Your task to perform on an android device: add a contact Image 0: 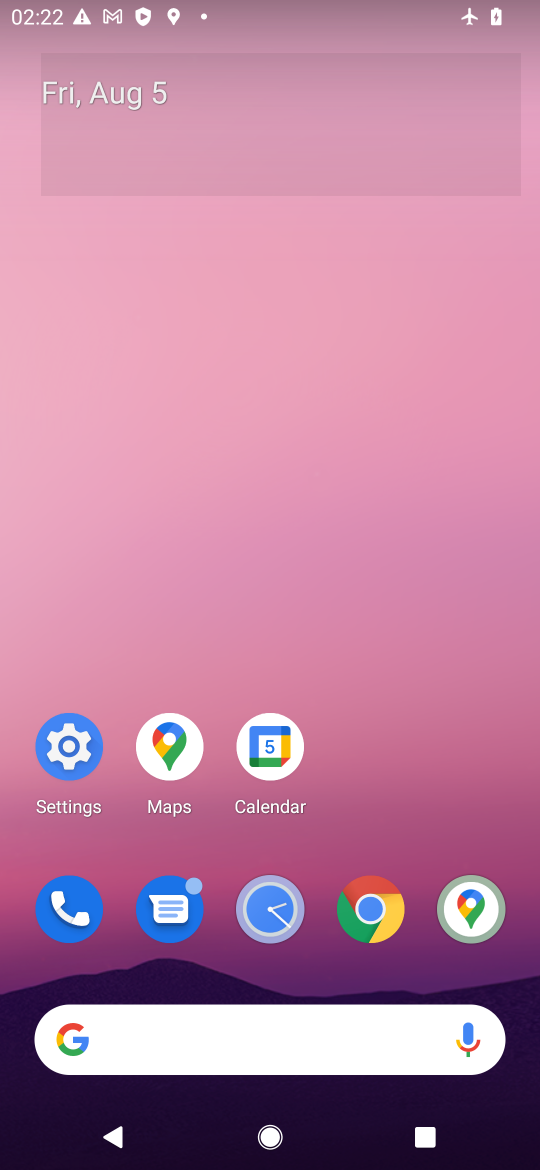
Step 0: drag from (360, 807) to (368, 88)
Your task to perform on an android device: add a contact Image 1: 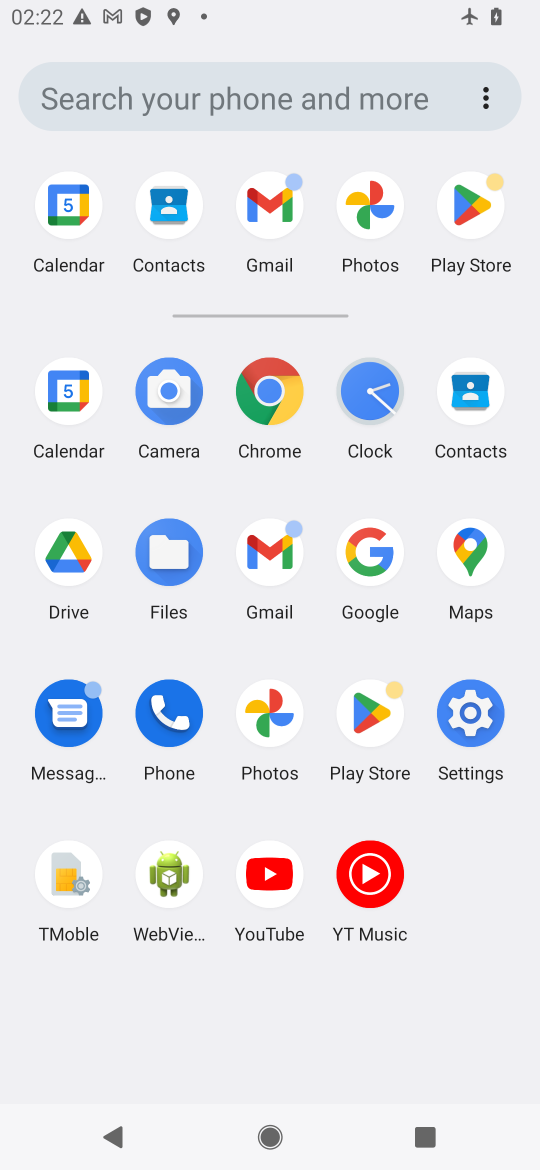
Step 1: click (473, 390)
Your task to perform on an android device: add a contact Image 2: 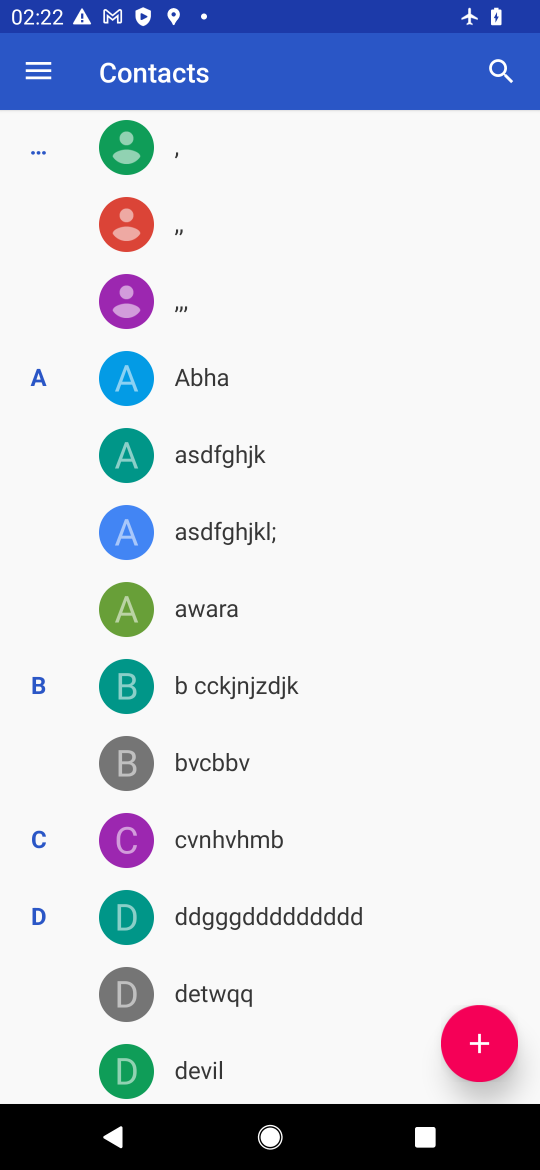
Step 2: click (482, 1046)
Your task to perform on an android device: add a contact Image 3: 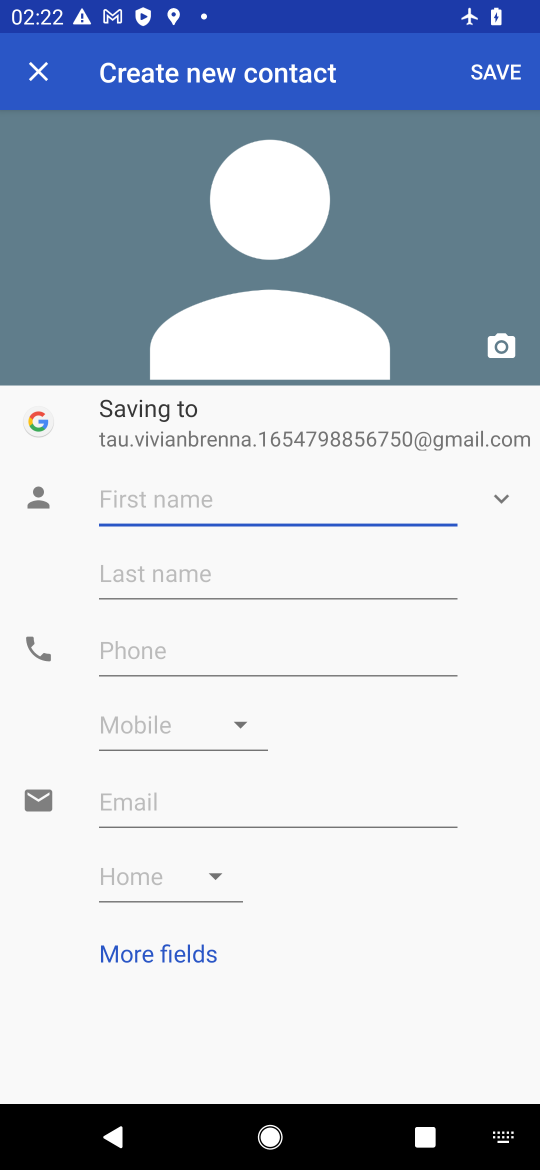
Step 3: type "ddddddd"
Your task to perform on an android device: add a contact Image 4: 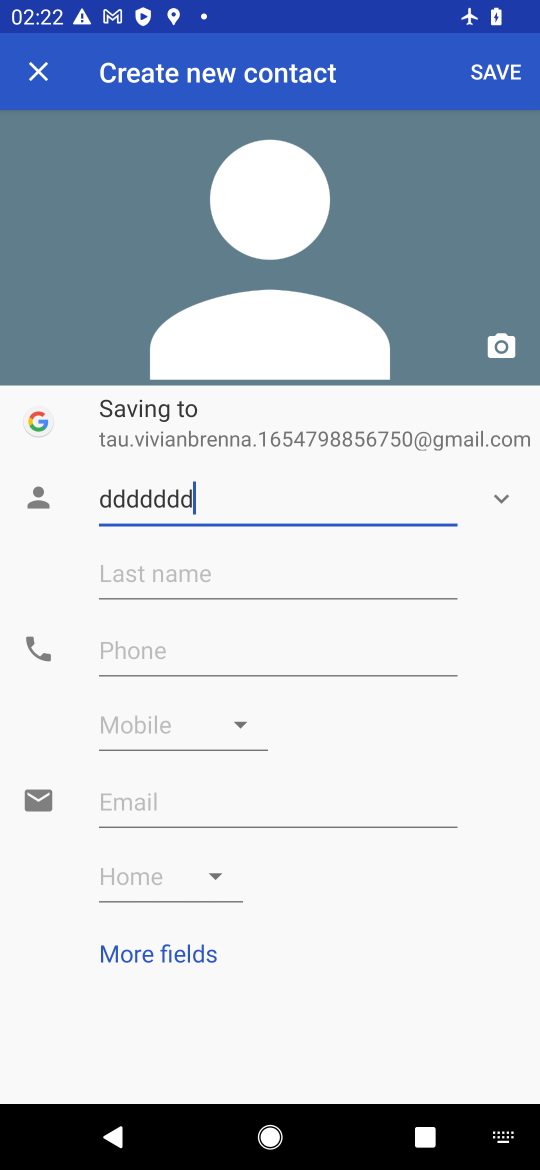
Step 4: click (247, 638)
Your task to perform on an android device: add a contact Image 5: 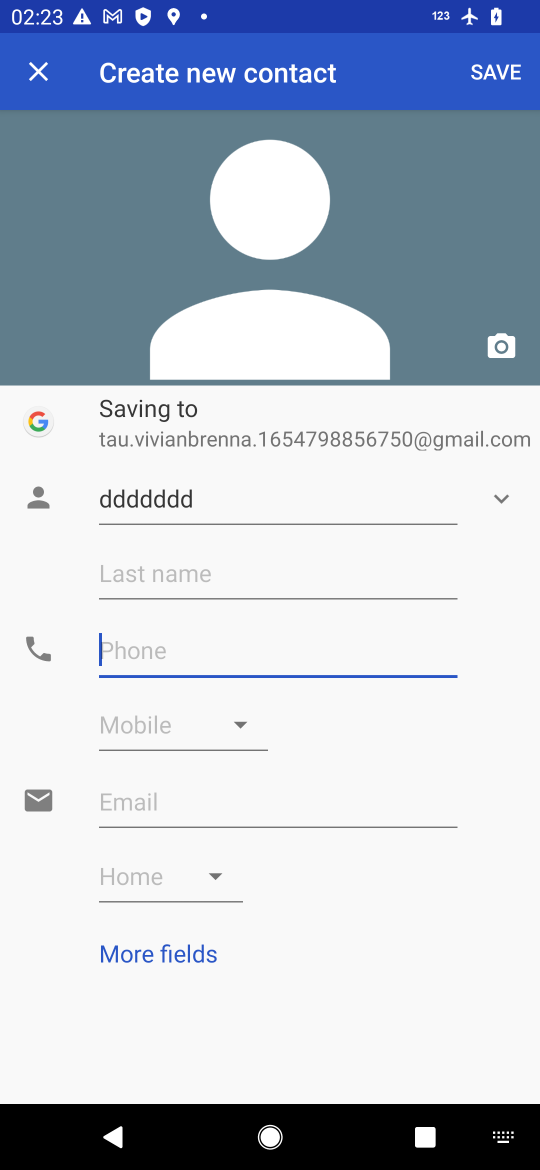
Step 5: type "5555"
Your task to perform on an android device: add a contact Image 6: 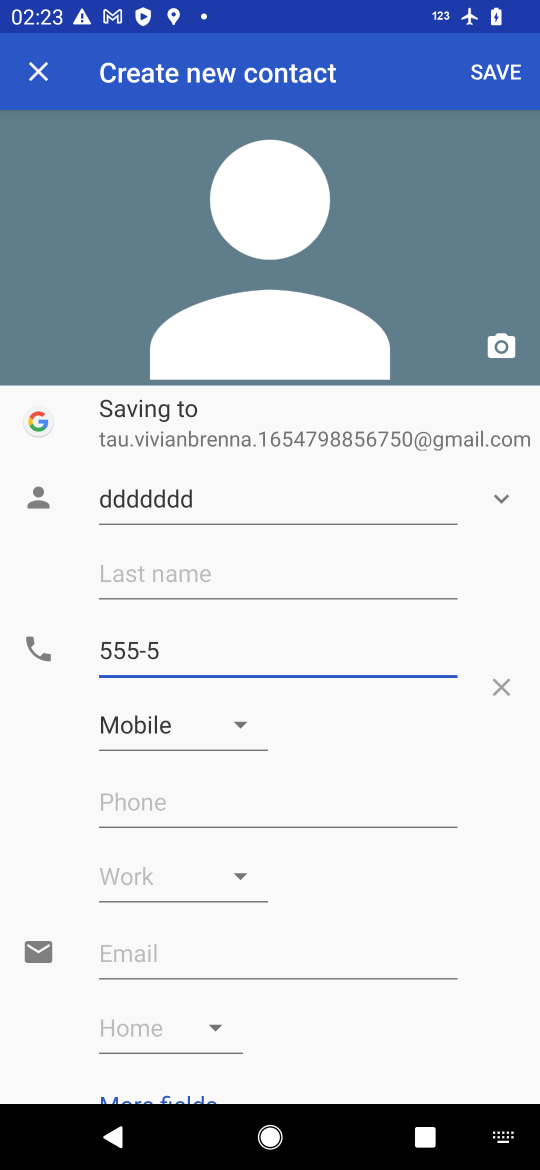
Step 6: click (499, 68)
Your task to perform on an android device: add a contact Image 7: 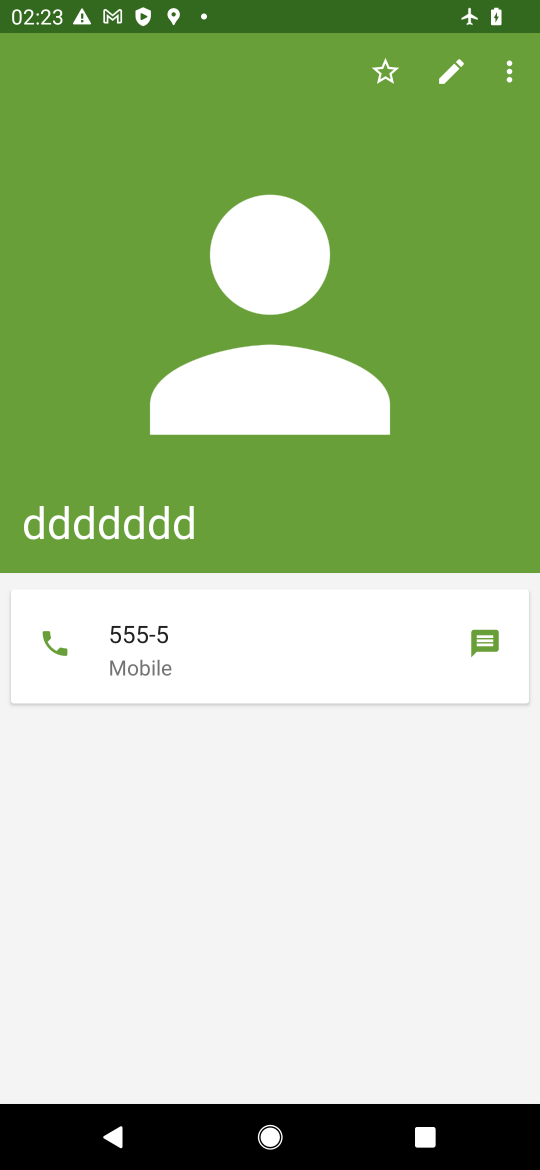
Step 7: task complete